Your task to perform on an android device: set the timer Image 0: 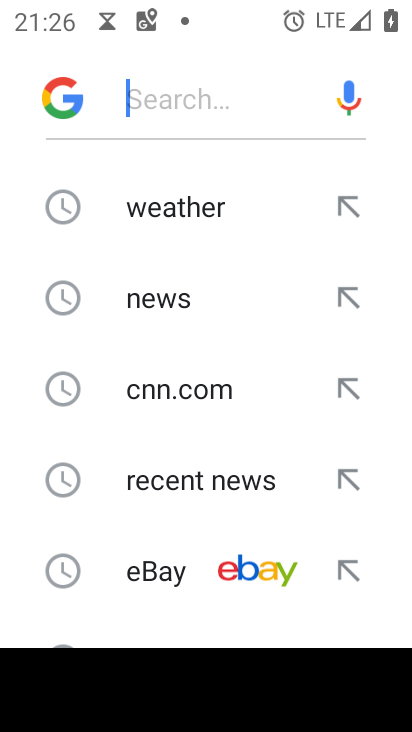
Step 0: press home button
Your task to perform on an android device: set the timer Image 1: 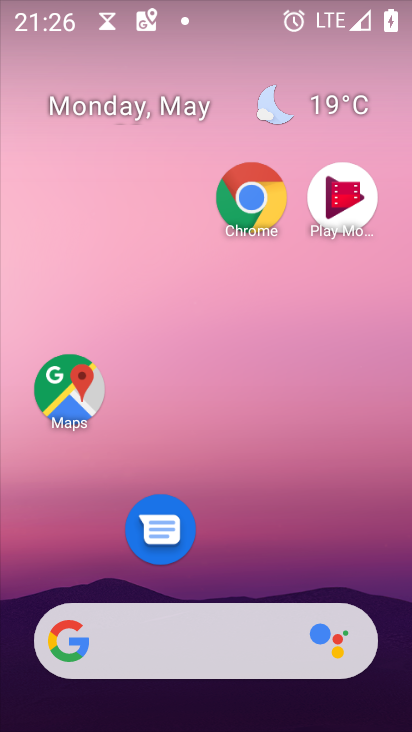
Step 1: drag from (228, 564) to (227, 348)
Your task to perform on an android device: set the timer Image 2: 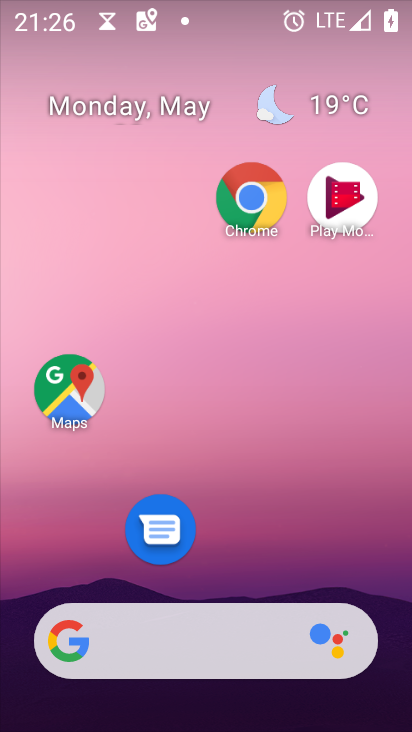
Step 2: drag from (273, 572) to (276, 211)
Your task to perform on an android device: set the timer Image 3: 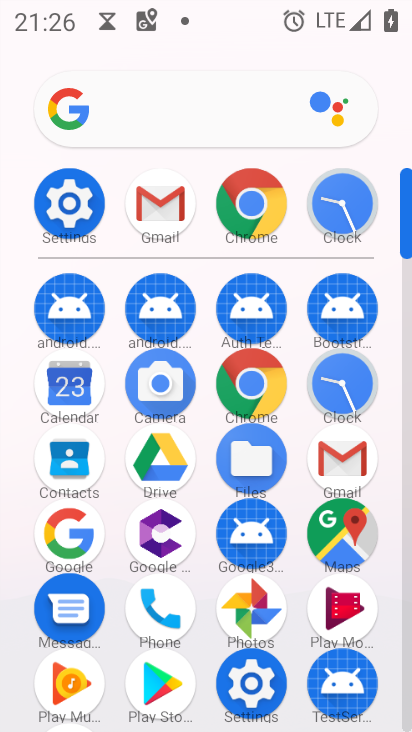
Step 3: click (335, 390)
Your task to perform on an android device: set the timer Image 4: 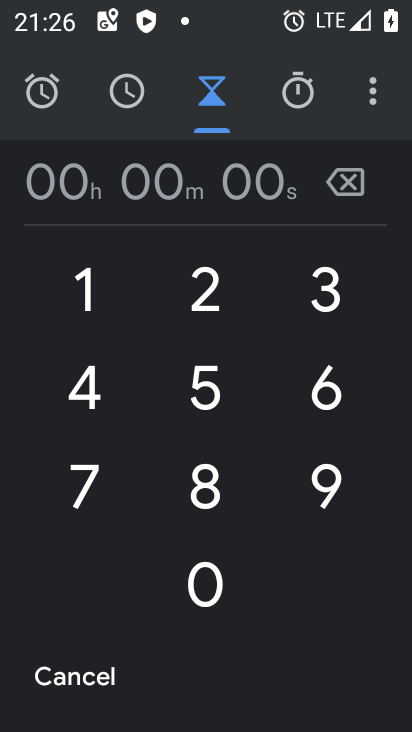
Step 4: click (207, 310)
Your task to perform on an android device: set the timer Image 5: 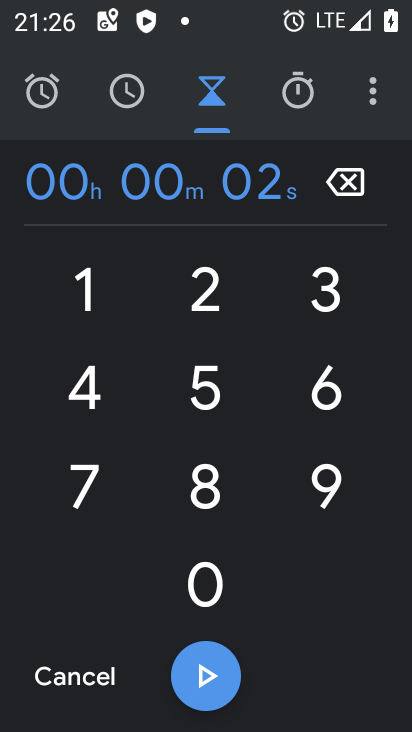
Step 5: click (206, 610)
Your task to perform on an android device: set the timer Image 6: 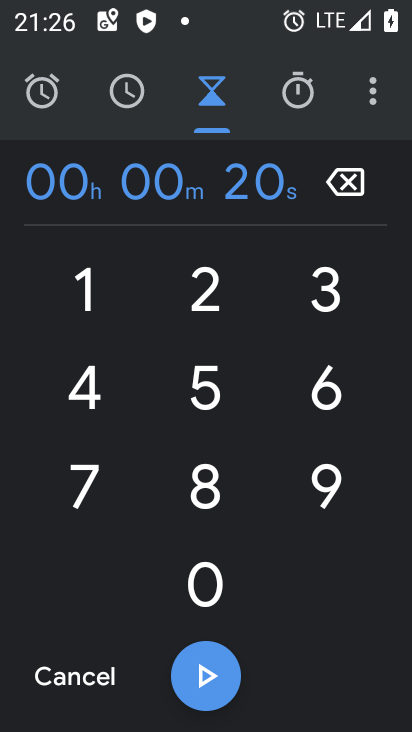
Step 6: click (196, 409)
Your task to perform on an android device: set the timer Image 7: 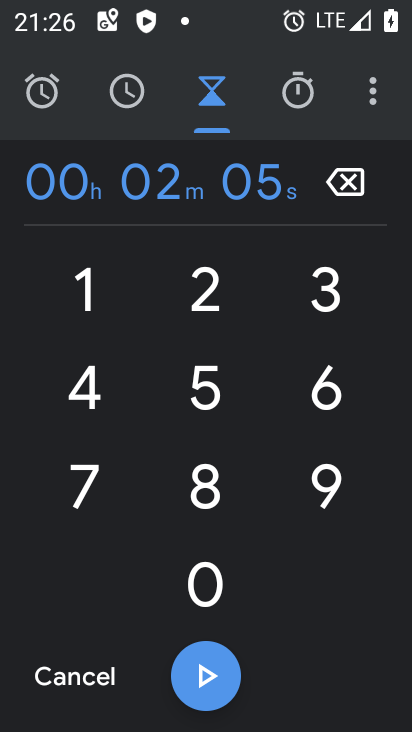
Step 7: click (205, 589)
Your task to perform on an android device: set the timer Image 8: 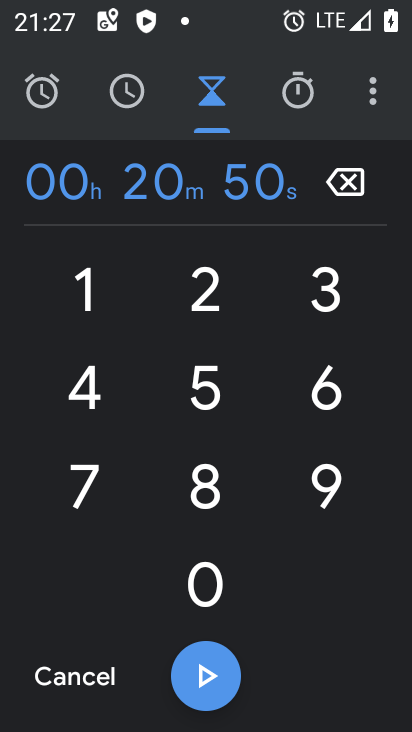
Step 8: click (226, 672)
Your task to perform on an android device: set the timer Image 9: 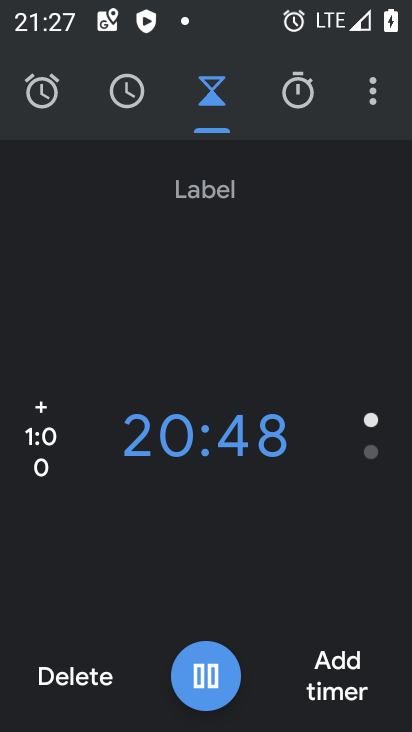
Step 9: click (310, 687)
Your task to perform on an android device: set the timer Image 10: 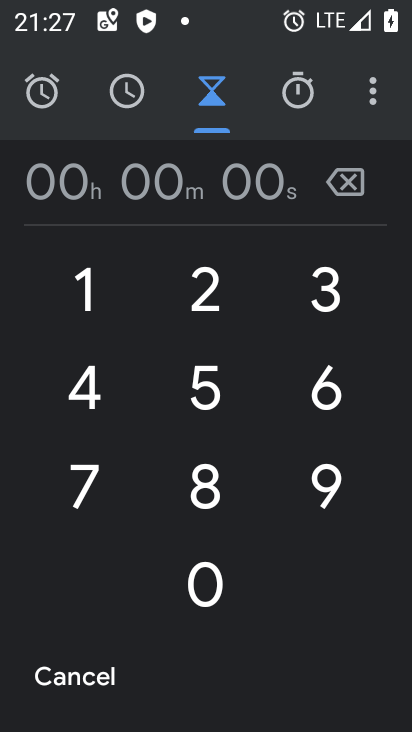
Step 10: task complete